Your task to perform on an android device: snooze an email in the gmail app Image 0: 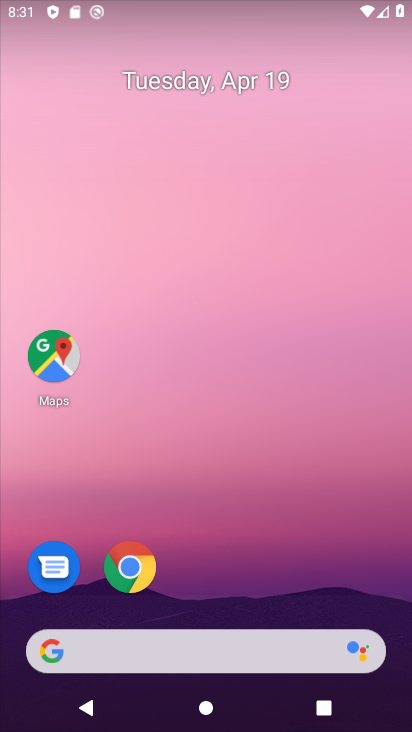
Step 0: drag from (266, 588) to (256, 76)
Your task to perform on an android device: snooze an email in the gmail app Image 1: 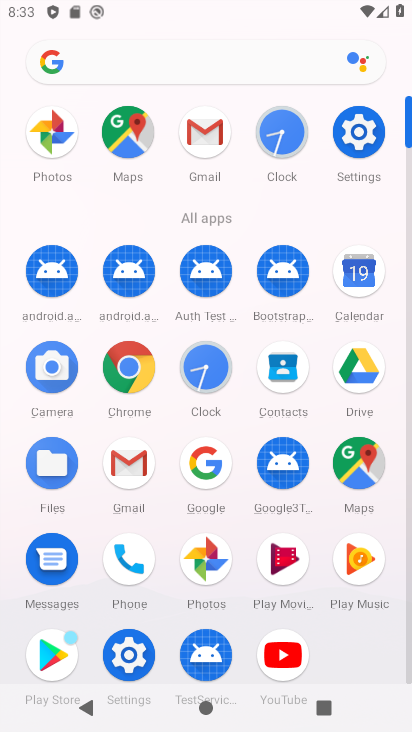
Step 1: click (210, 145)
Your task to perform on an android device: snooze an email in the gmail app Image 2: 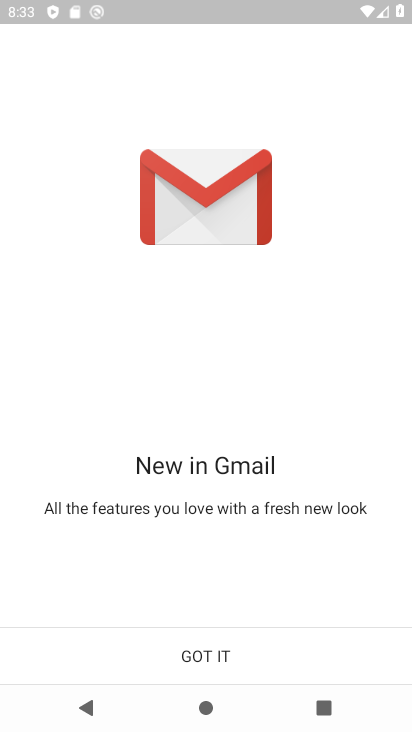
Step 2: click (196, 663)
Your task to perform on an android device: snooze an email in the gmail app Image 3: 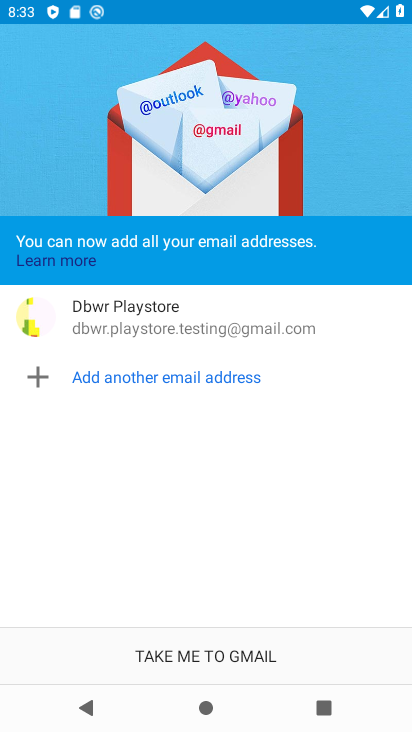
Step 3: click (196, 663)
Your task to perform on an android device: snooze an email in the gmail app Image 4: 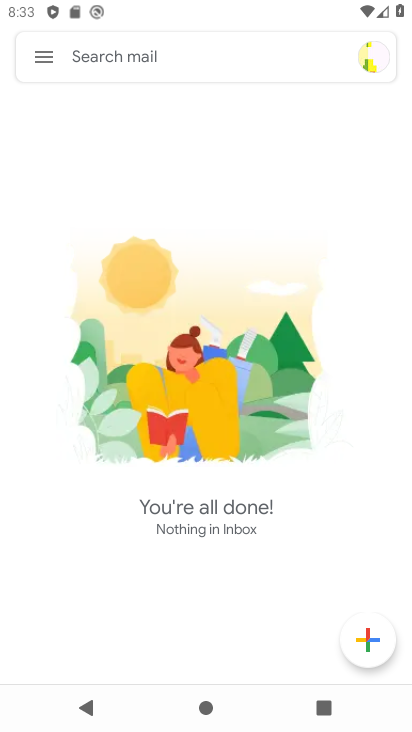
Step 4: task complete